Your task to perform on an android device: change the clock display to analog Image 0: 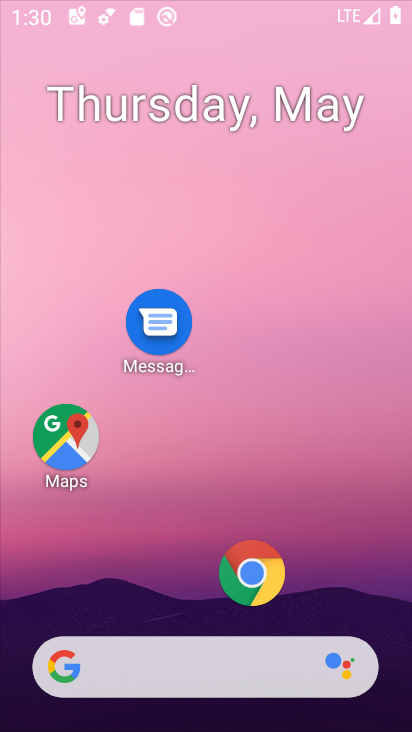
Step 0: click (263, 154)
Your task to perform on an android device: change the clock display to analog Image 1: 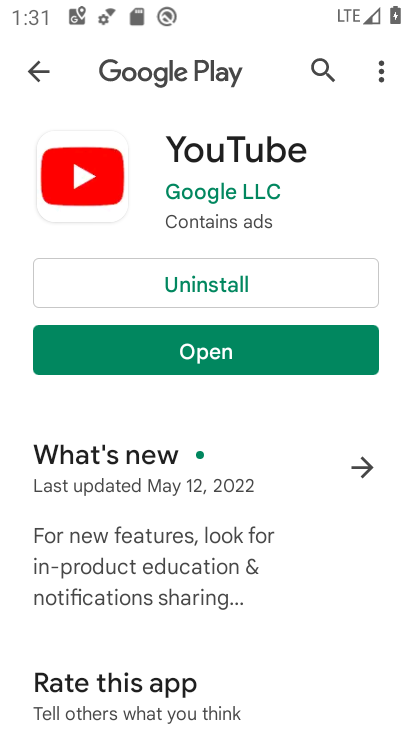
Step 1: press home button
Your task to perform on an android device: change the clock display to analog Image 2: 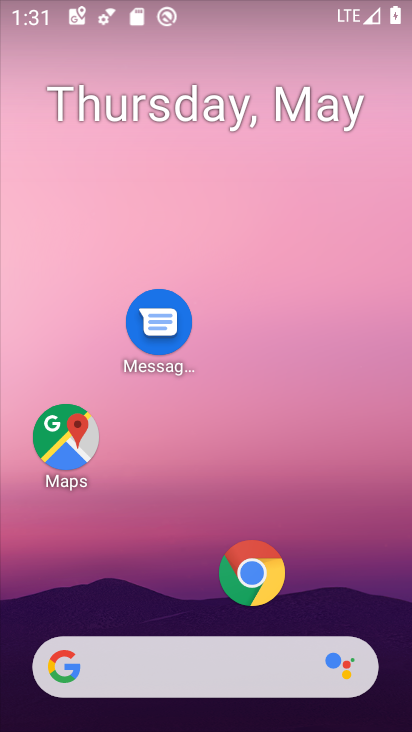
Step 2: drag from (198, 594) to (232, 325)
Your task to perform on an android device: change the clock display to analog Image 3: 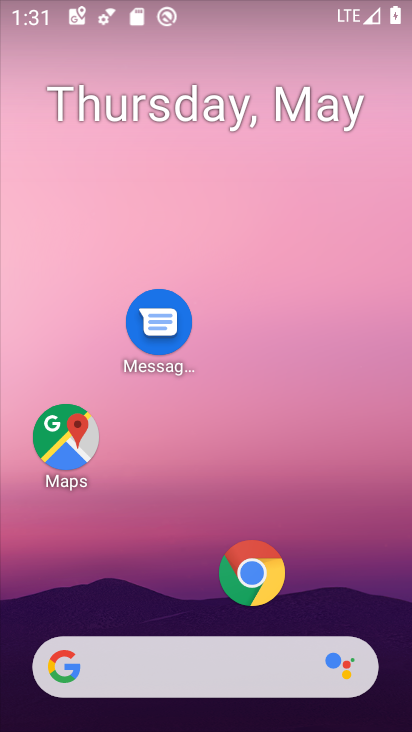
Step 3: drag from (189, 609) to (148, 3)
Your task to perform on an android device: change the clock display to analog Image 4: 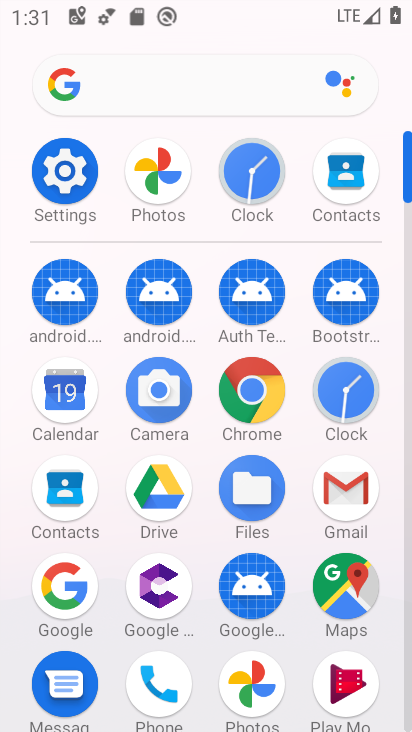
Step 4: click (333, 393)
Your task to perform on an android device: change the clock display to analog Image 5: 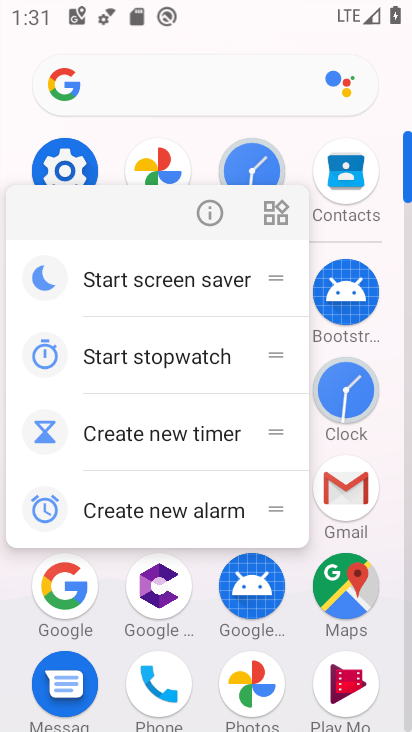
Step 5: click (204, 217)
Your task to perform on an android device: change the clock display to analog Image 6: 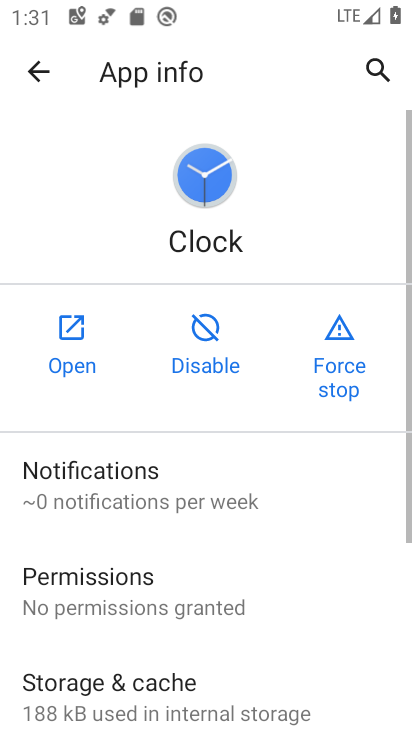
Step 6: click (60, 315)
Your task to perform on an android device: change the clock display to analog Image 7: 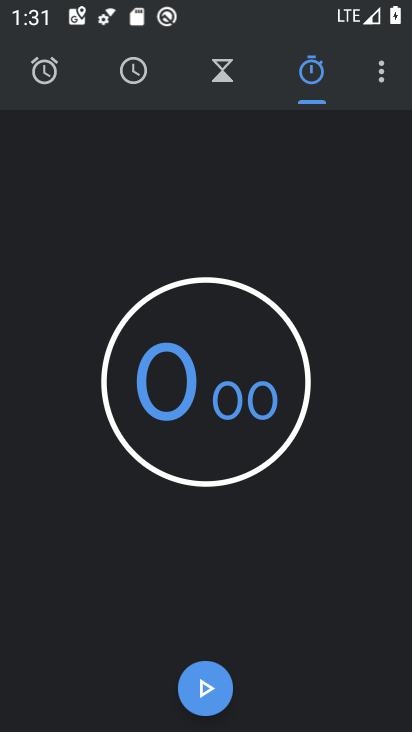
Step 7: click (372, 65)
Your task to perform on an android device: change the clock display to analog Image 8: 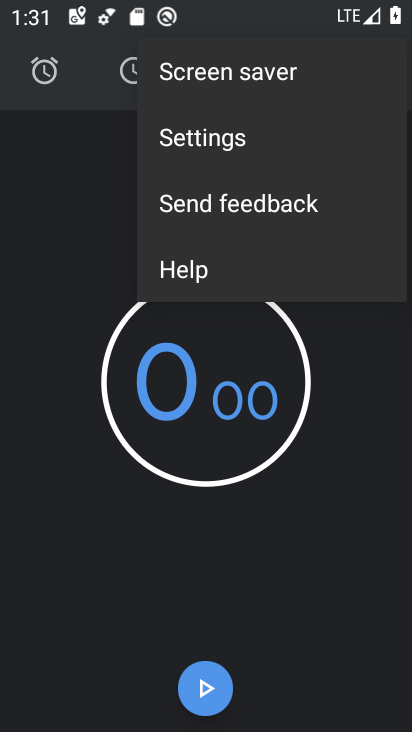
Step 8: click (196, 141)
Your task to perform on an android device: change the clock display to analog Image 9: 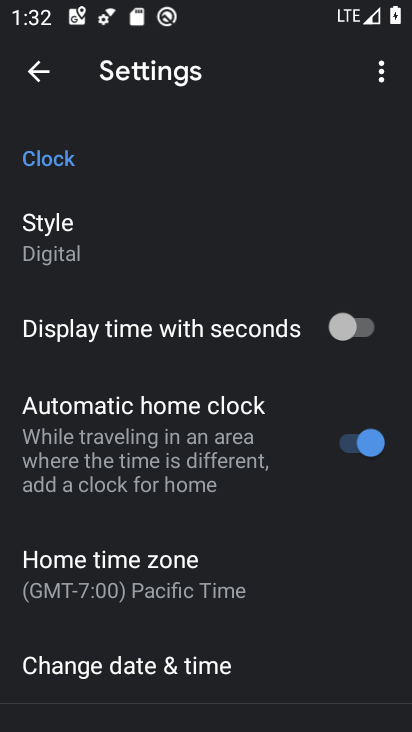
Step 9: click (82, 202)
Your task to perform on an android device: change the clock display to analog Image 10: 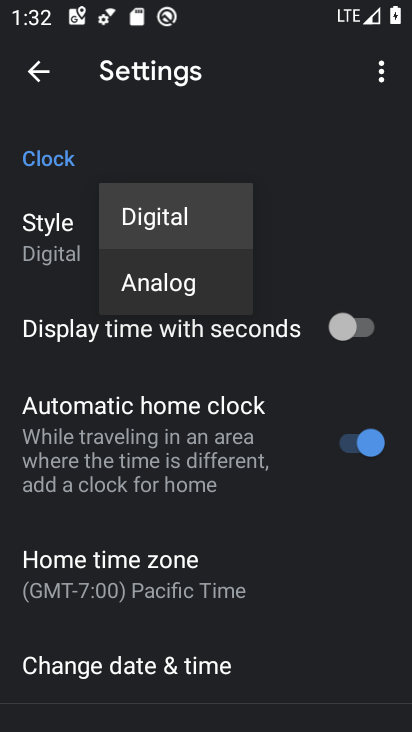
Step 10: click (194, 313)
Your task to perform on an android device: change the clock display to analog Image 11: 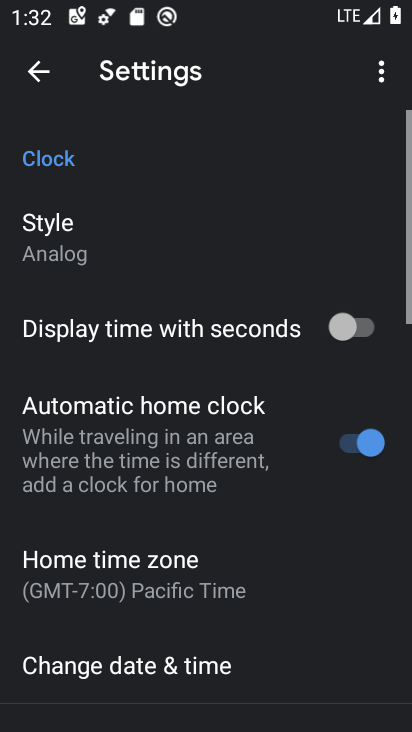
Step 11: task complete